Your task to perform on an android device: set the timer Image 0: 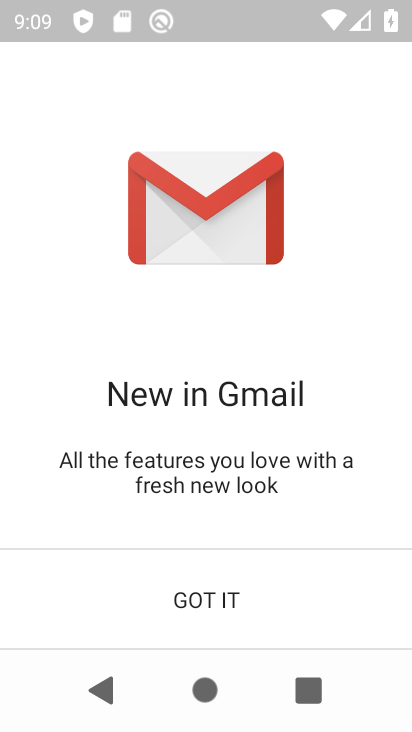
Step 0: click (218, 590)
Your task to perform on an android device: set the timer Image 1: 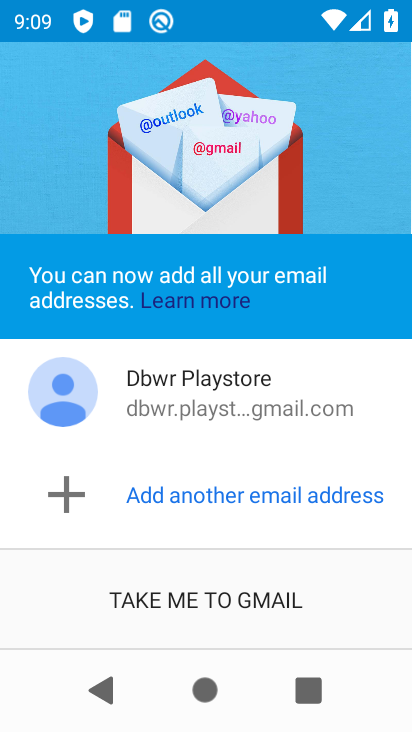
Step 1: press home button
Your task to perform on an android device: set the timer Image 2: 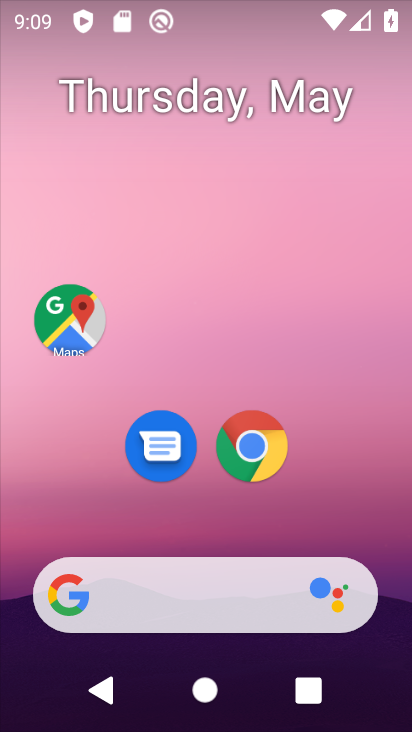
Step 2: drag from (206, 504) to (217, 34)
Your task to perform on an android device: set the timer Image 3: 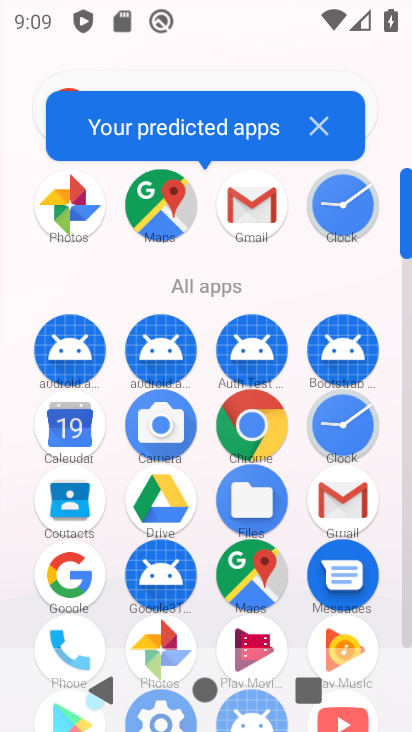
Step 3: click (354, 423)
Your task to perform on an android device: set the timer Image 4: 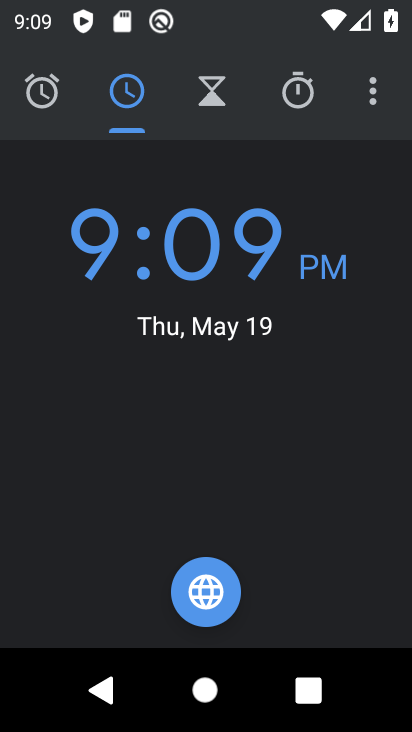
Step 4: click (233, 99)
Your task to perform on an android device: set the timer Image 5: 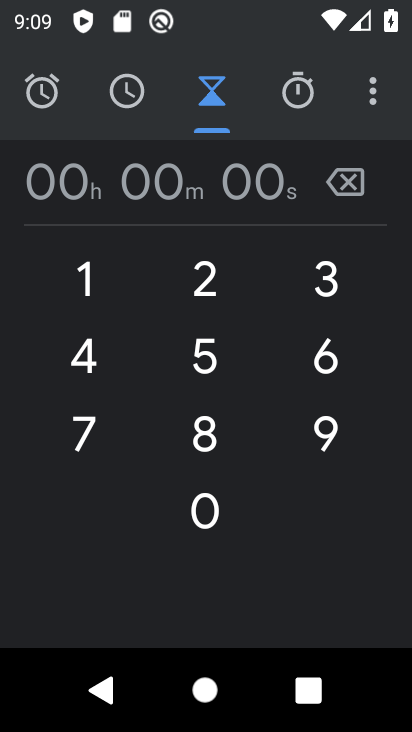
Step 5: click (311, 419)
Your task to perform on an android device: set the timer Image 6: 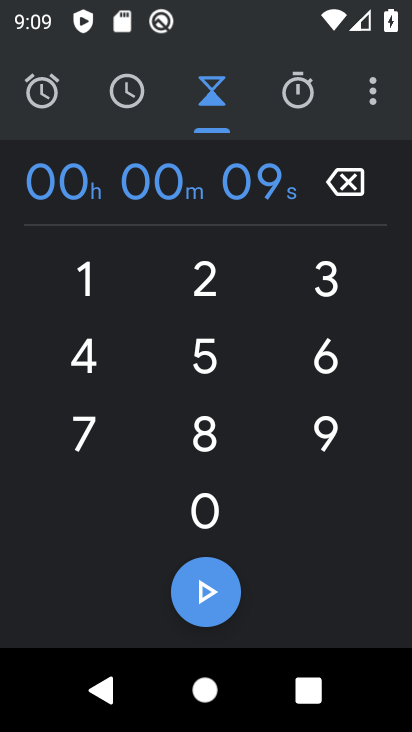
Step 6: click (314, 419)
Your task to perform on an android device: set the timer Image 7: 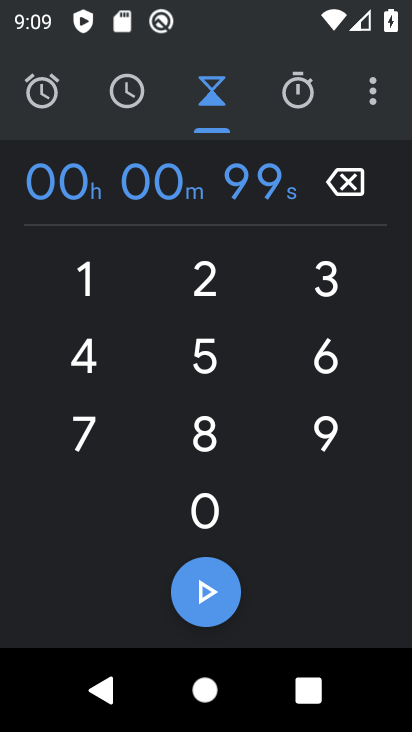
Step 7: click (316, 417)
Your task to perform on an android device: set the timer Image 8: 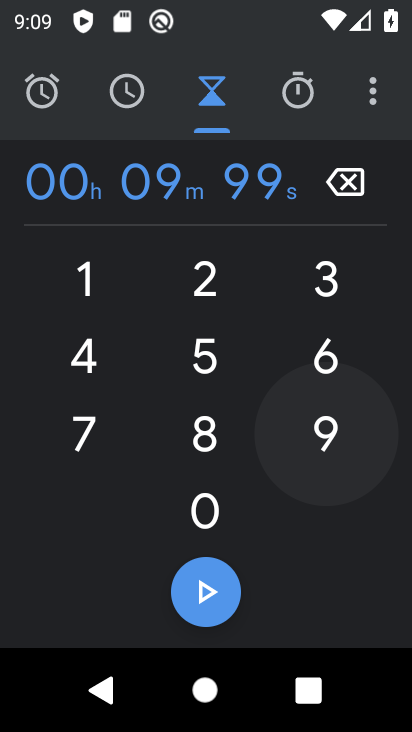
Step 8: click (316, 417)
Your task to perform on an android device: set the timer Image 9: 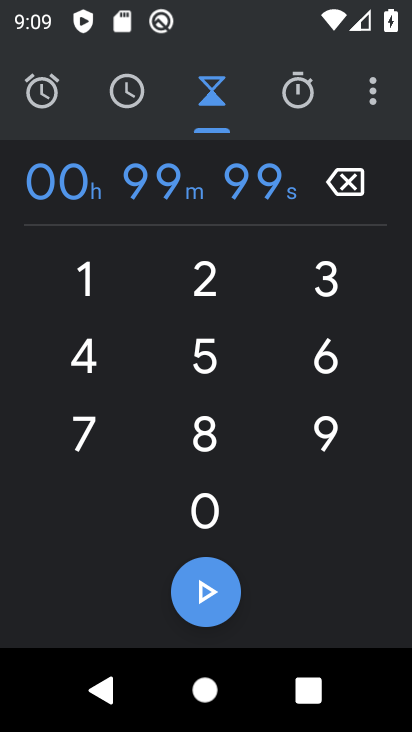
Step 9: click (316, 417)
Your task to perform on an android device: set the timer Image 10: 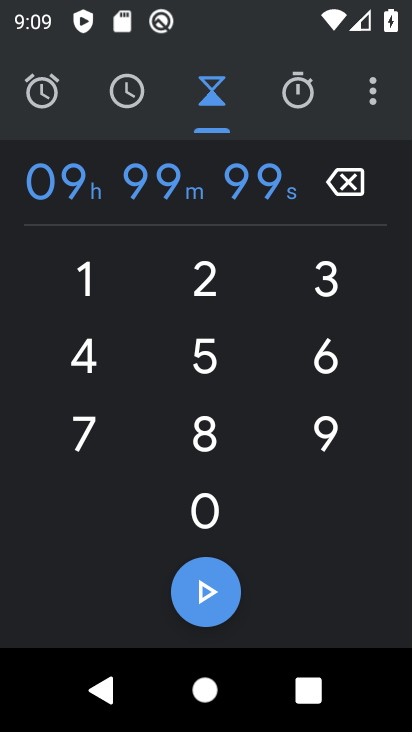
Step 10: click (316, 417)
Your task to perform on an android device: set the timer Image 11: 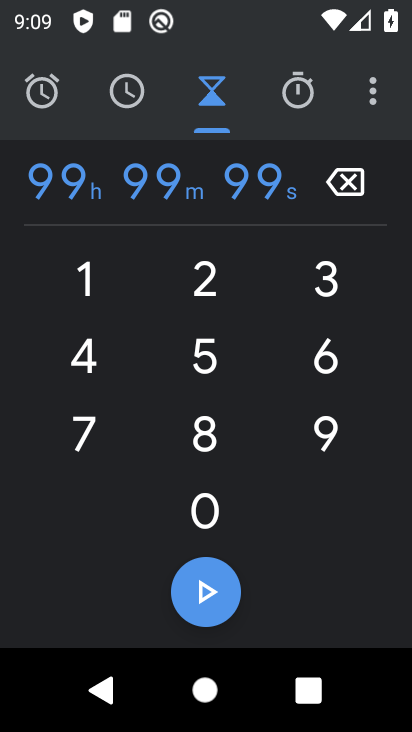
Step 11: click (316, 417)
Your task to perform on an android device: set the timer Image 12: 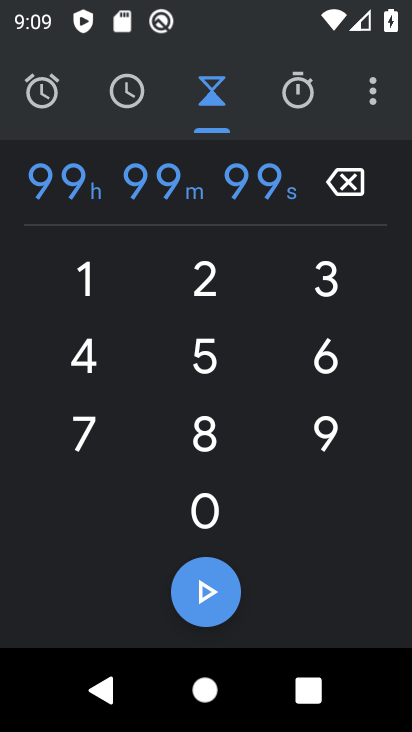
Step 12: click (220, 600)
Your task to perform on an android device: set the timer Image 13: 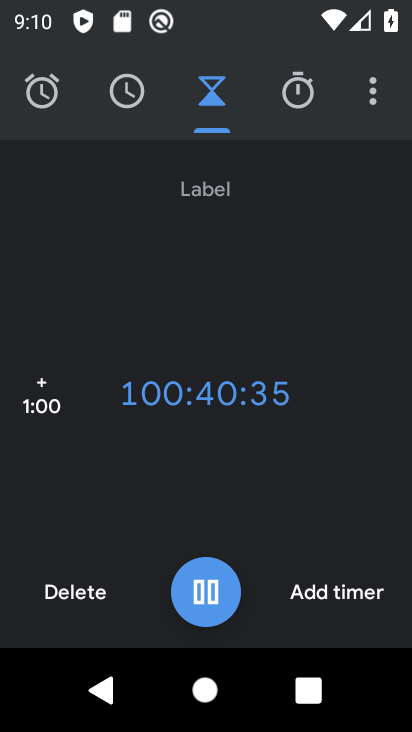
Step 13: task complete